Your task to perform on an android device: Search for flights from NYC to San Diego Image 0: 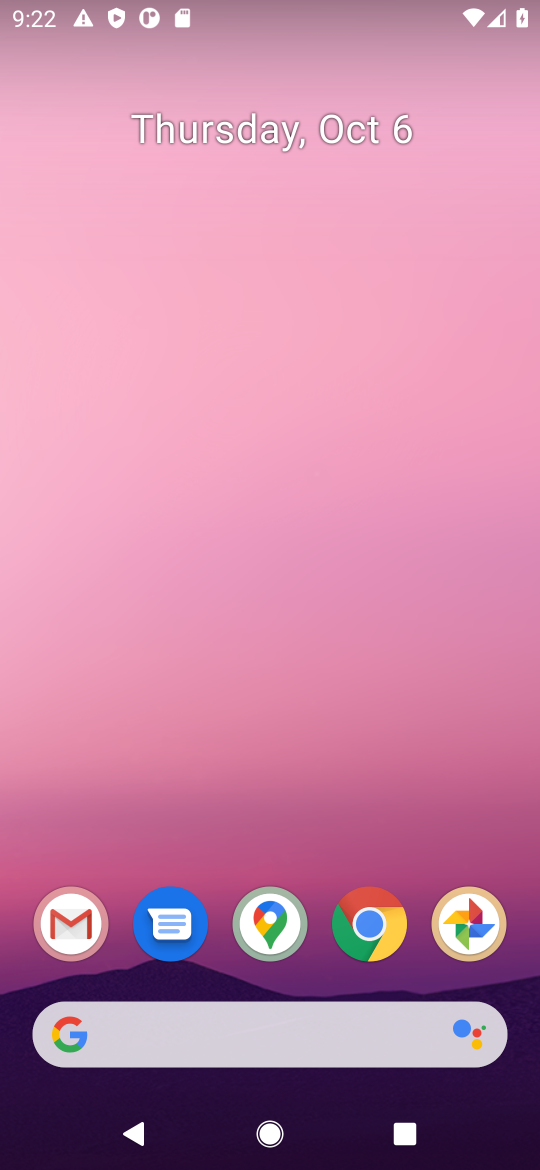
Step 0: click (373, 925)
Your task to perform on an android device: Search for flights from NYC to San Diego Image 1: 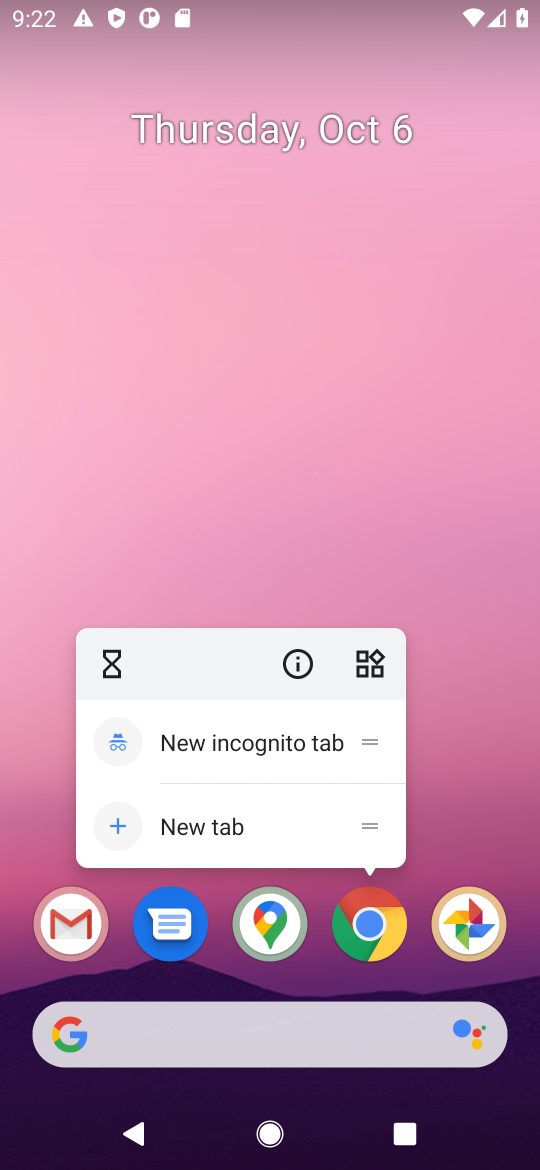
Step 1: click (360, 933)
Your task to perform on an android device: Search for flights from NYC to San Diego Image 2: 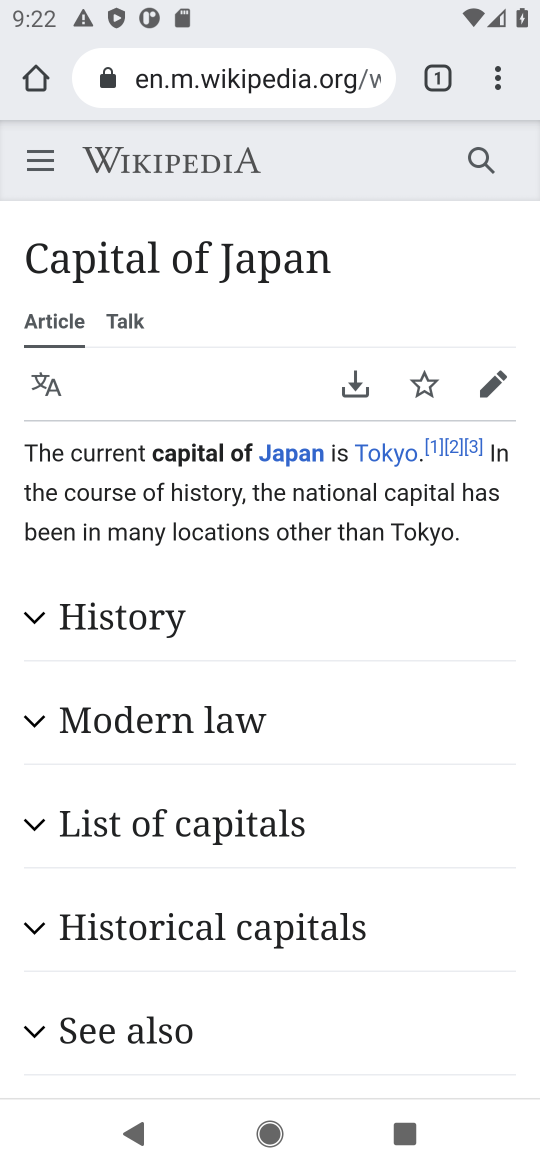
Step 2: click (297, 79)
Your task to perform on an android device: Search for flights from NYC to San Diego Image 3: 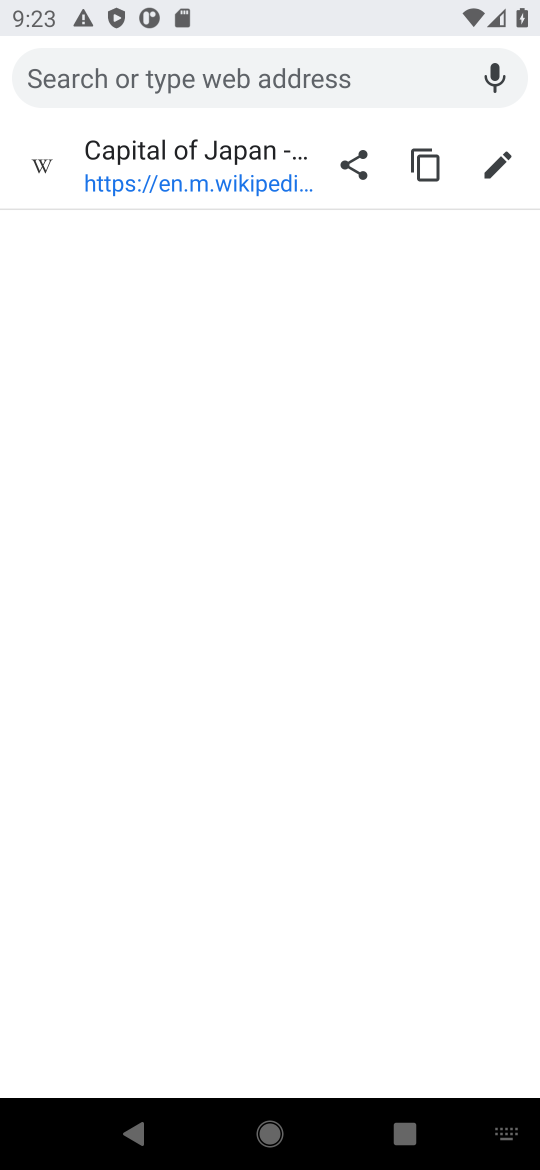
Step 3: type "flights from NYC to San Diego"
Your task to perform on an android device: Search for flights from NYC to San Diego Image 4: 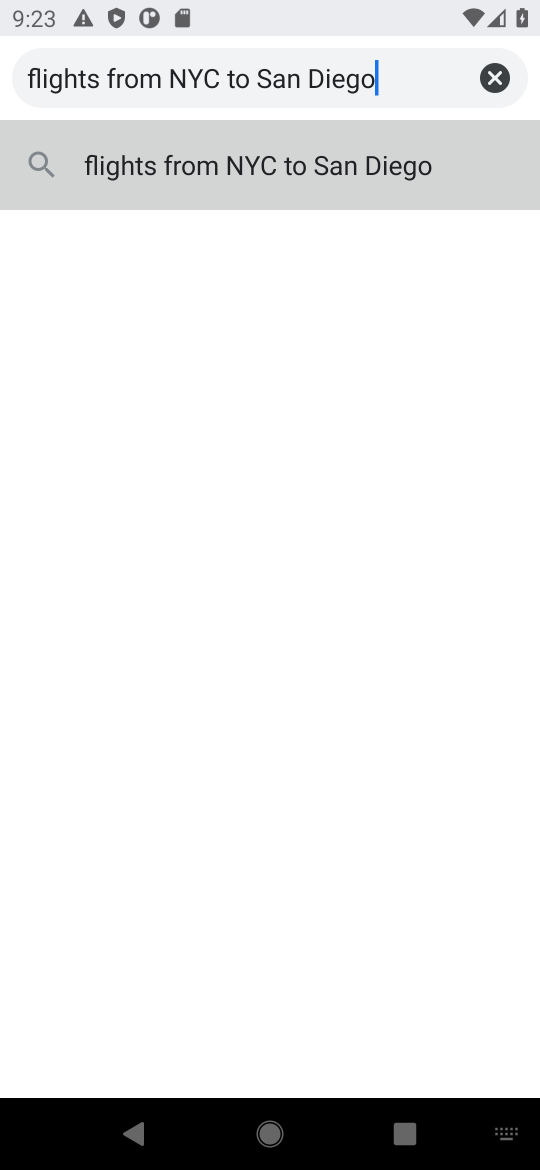
Step 4: click (279, 146)
Your task to perform on an android device: Search for flights from NYC to San Diego Image 5: 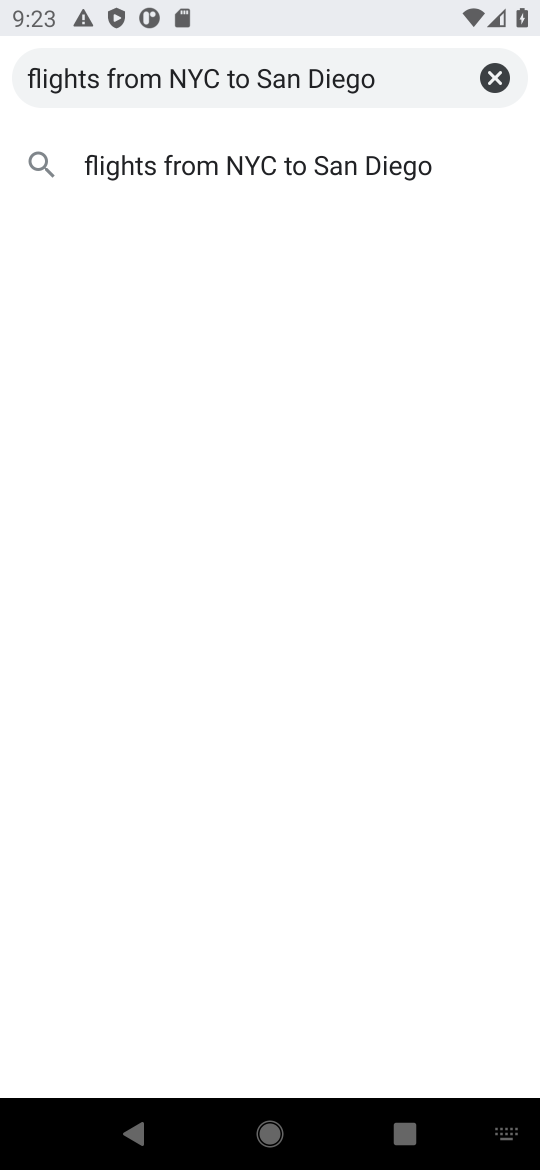
Step 5: click (272, 156)
Your task to perform on an android device: Search for flights from NYC to San Diego Image 6: 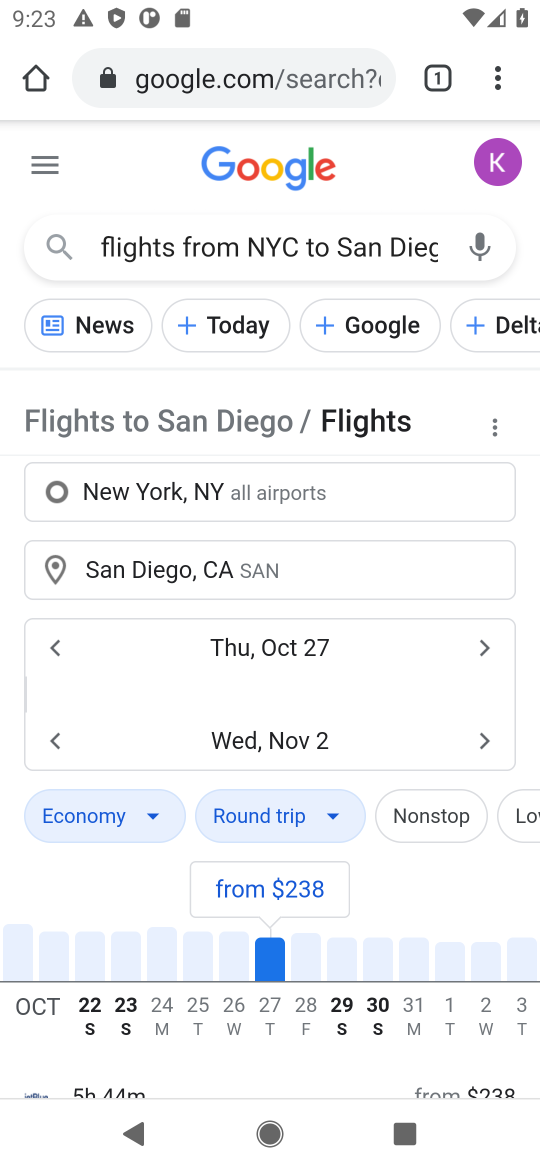
Step 6: drag from (140, 903) to (353, 292)
Your task to perform on an android device: Search for flights from NYC to San Diego Image 7: 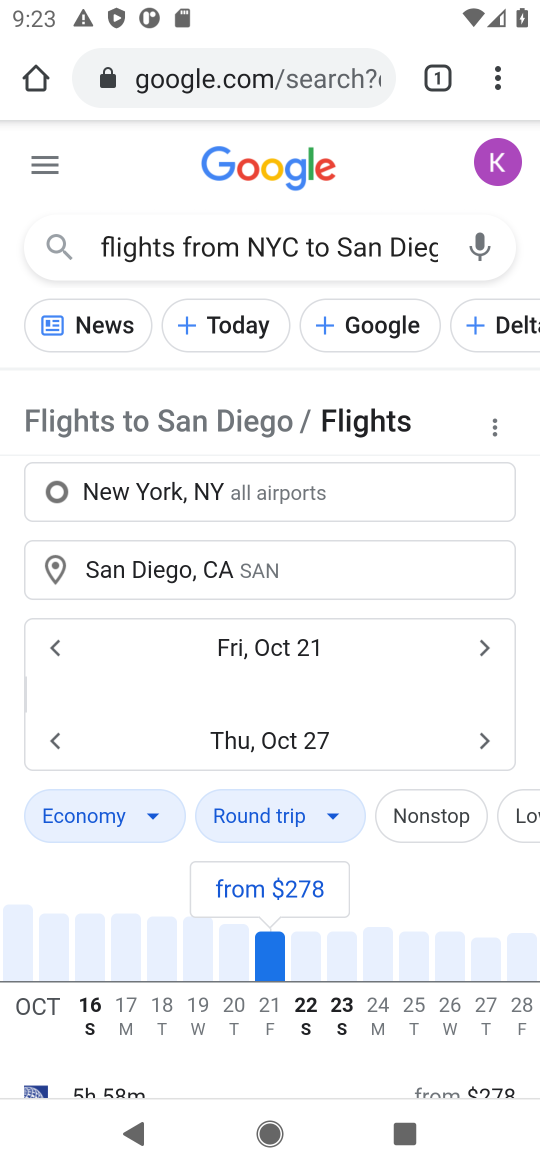
Step 7: drag from (419, 561) to (459, 144)
Your task to perform on an android device: Search for flights from NYC to San Diego Image 8: 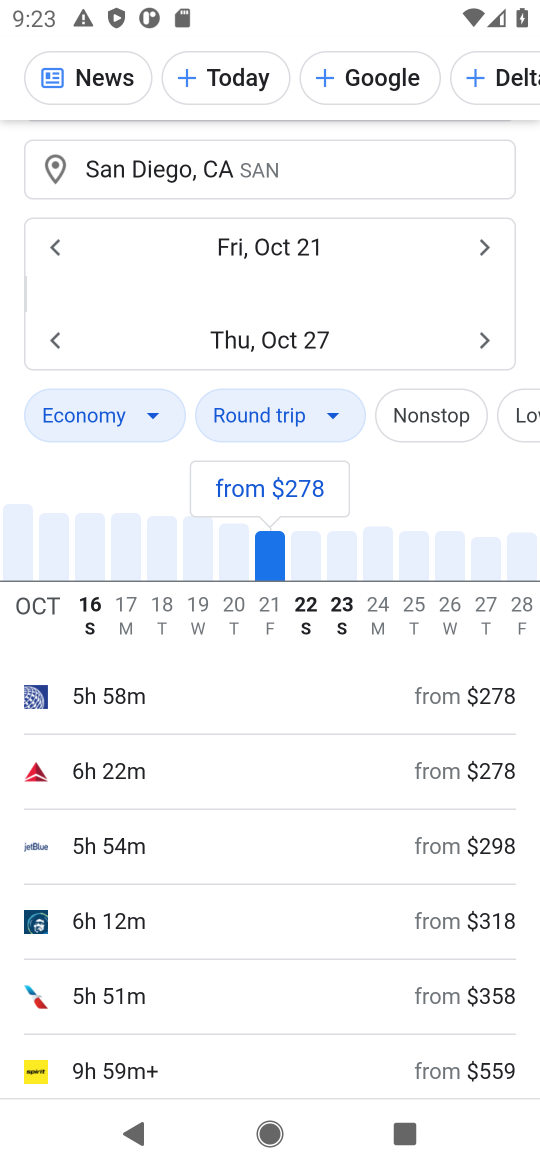
Step 8: drag from (233, 1000) to (326, 566)
Your task to perform on an android device: Search for flights from NYC to San Diego Image 9: 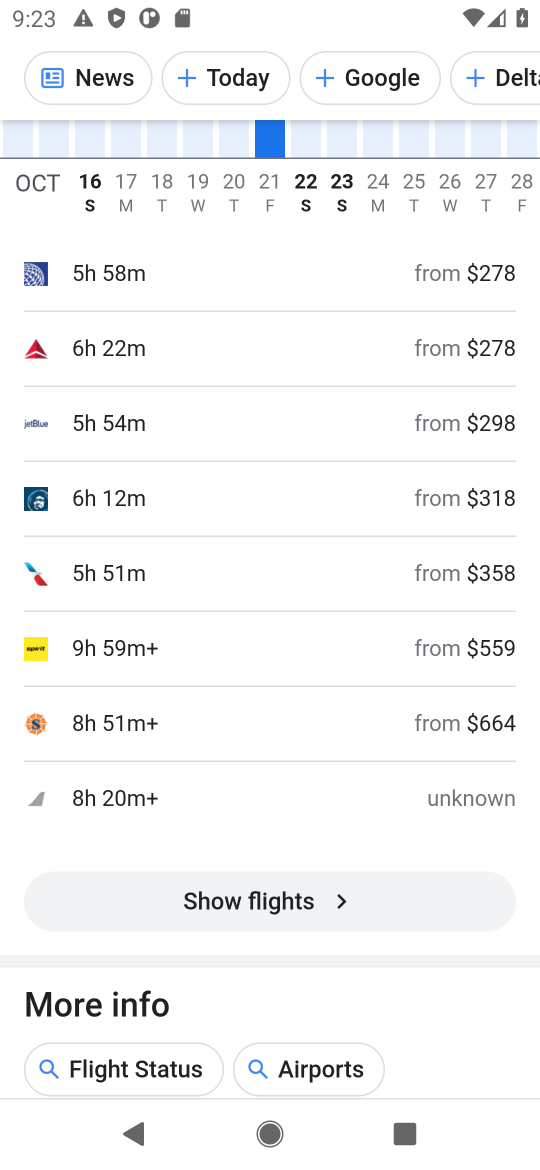
Step 9: click (288, 899)
Your task to perform on an android device: Search for flights from NYC to San Diego Image 10: 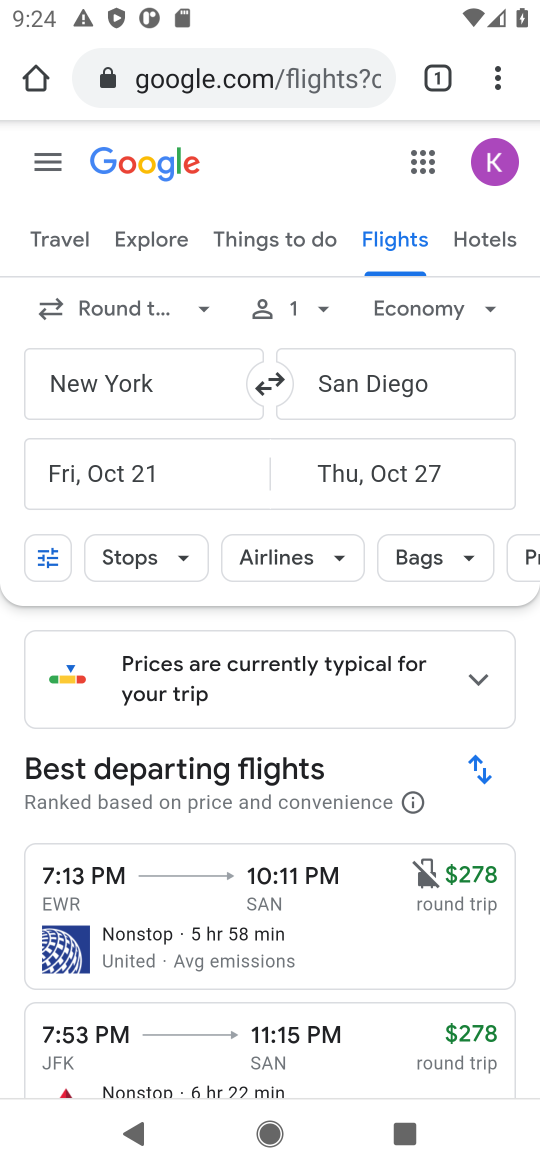
Step 10: task complete